Your task to perform on an android device: Open wifi settings Image 0: 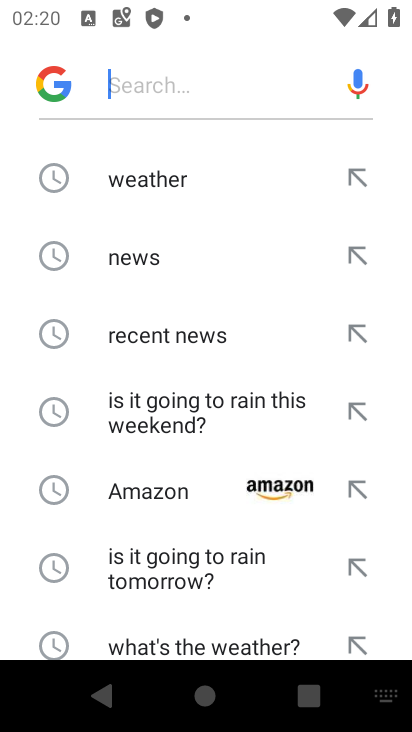
Step 0: press home button
Your task to perform on an android device: Open wifi settings Image 1: 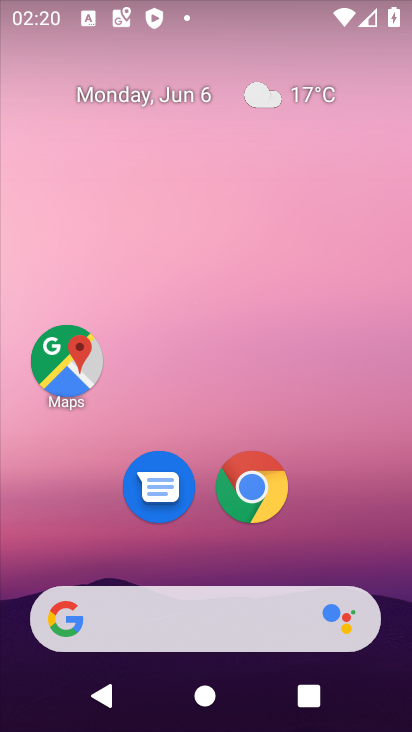
Step 1: drag from (398, 629) to (341, 274)
Your task to perform on an android device: Open wifi settings Image 2: 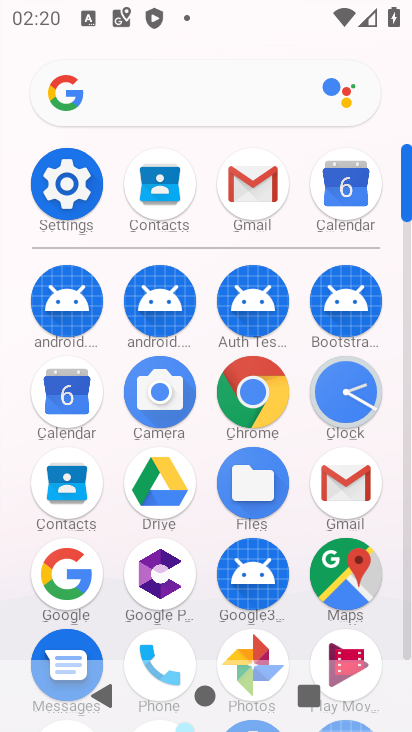
Step 2: click (409, 645)
Your task to perform on an android device: Open wifi settings Image 3: 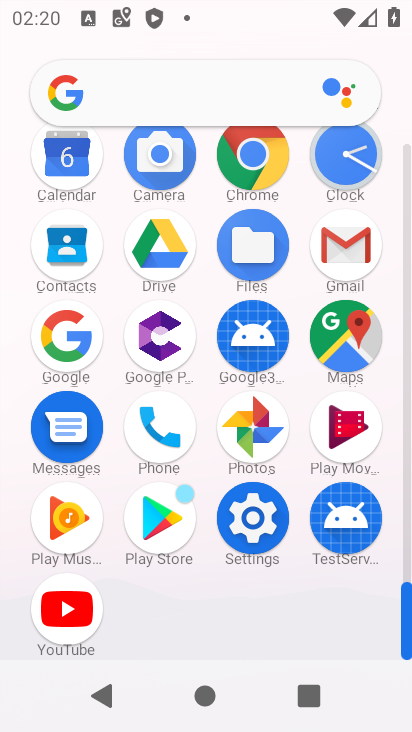
Step 3: click (251, 521)
Your task to perform on an android device: Open wifi settings Image 4: 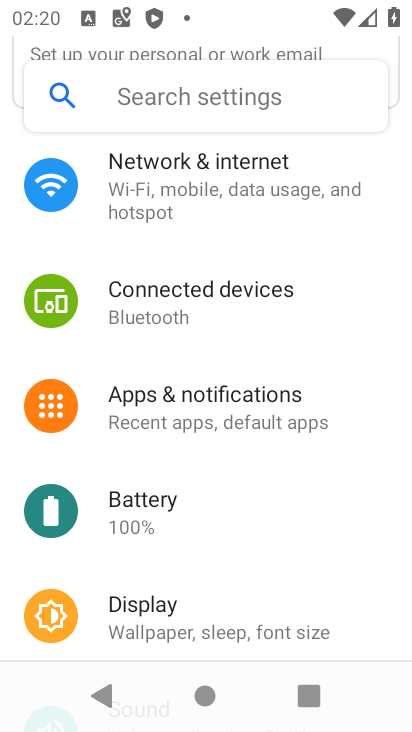
Step 4: click (144, 165)
Your task to perform on an android device: Open wifi settings Image 5: 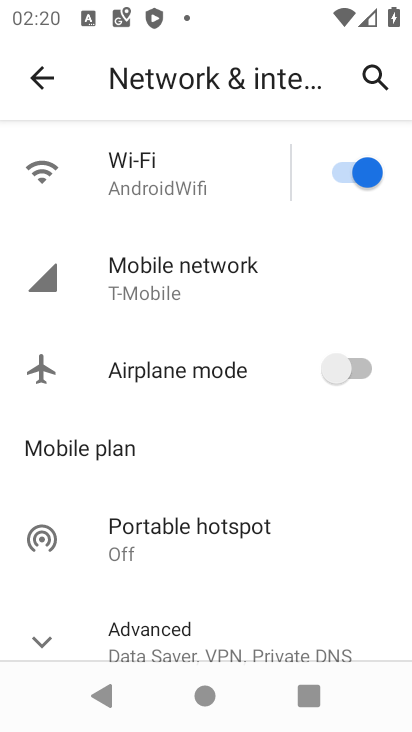
Step 5: click (125, 161)
Your task to perform on an android device: Open wifi settings Image 6: 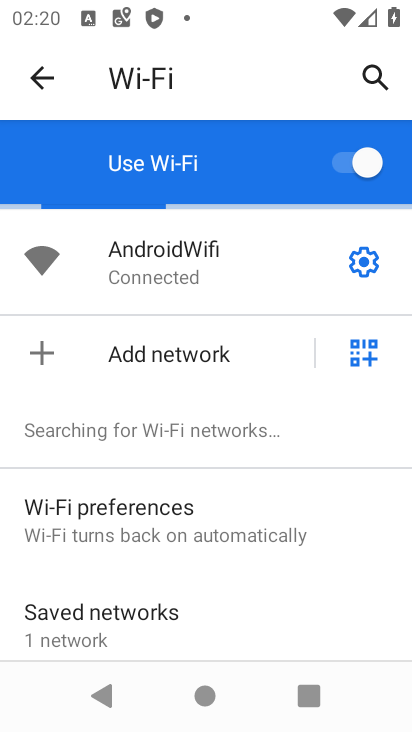
Step 6: drag from (245, 612) to (278, 231)
Your task to perform on an android device: Open wifi settings Image 7: 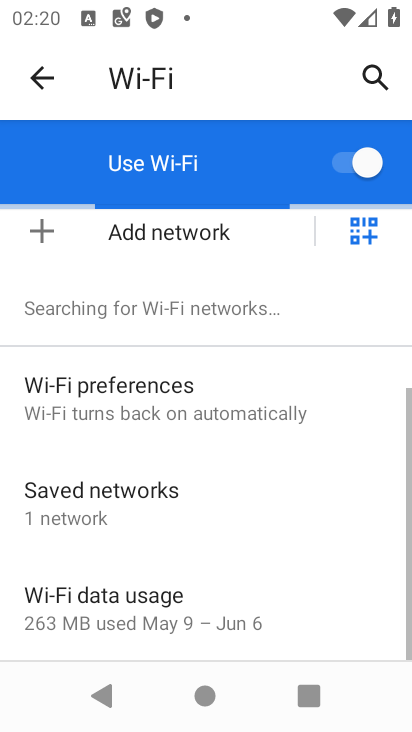
Step 7: drag from (291, 598) to (271, 637)
Your task to perform on an android device: Open wifi settings Image 8: 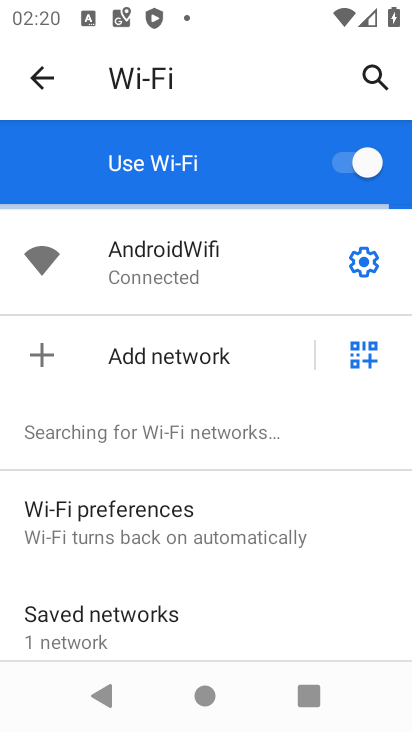
Step 8: click (364, 259)
Your task to perform on an android device: Open wifi settings Image 9: 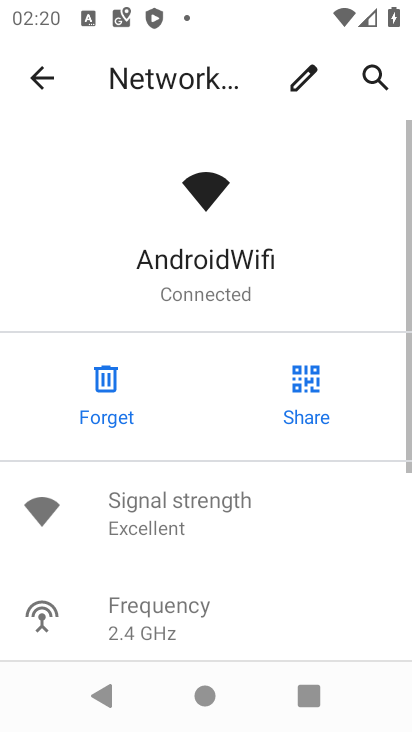
Step 9: drag from (230, 586) to (210, 196)
Your task to perform on an android device: Open wifi settings Image 10: 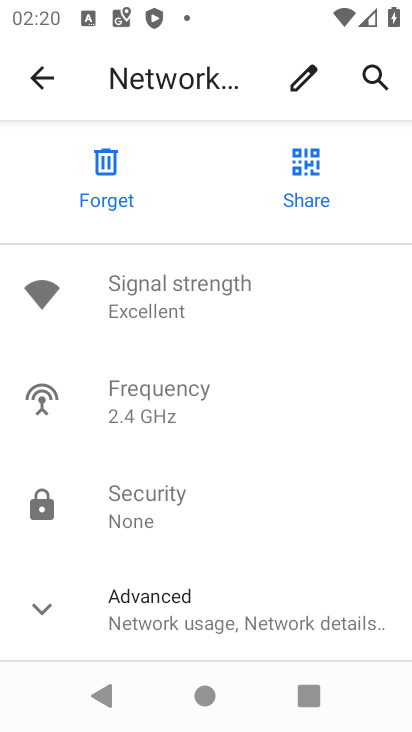
Step 10: click (41, 609)
Your task to perform on an android device: Open wifi settings Image 11: 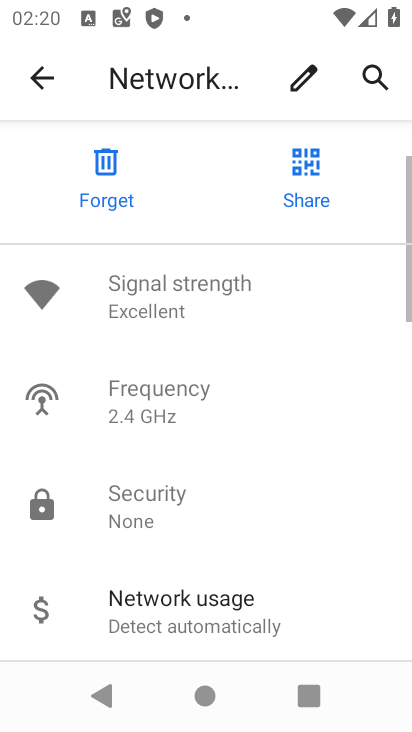
Step 11: task complete